Your task to perform on an android device: turn off notifications settings in the gmail app Image 0: 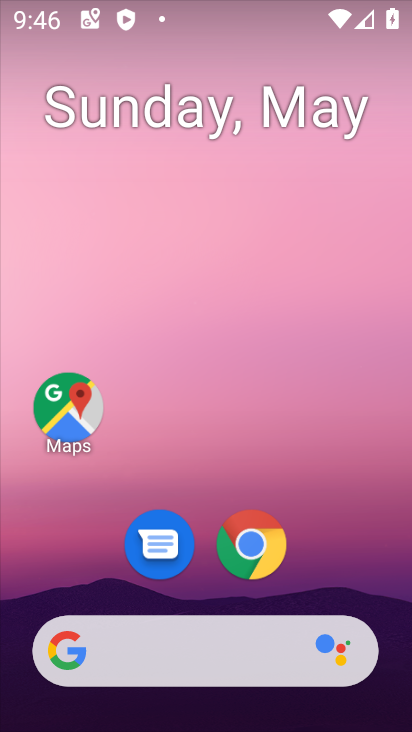
Step 0: drag from (366, 553) to (326, 14)
Your task to perform on an android device: turn off notifications settings in the gmail app Image 1: 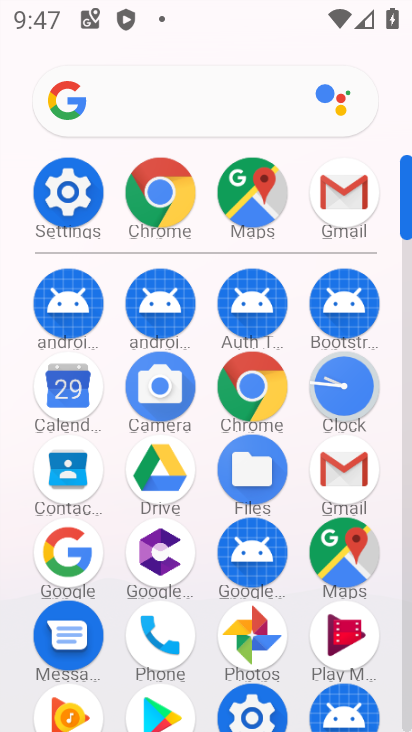
Step 1: click (375, 221)
Your task to perform on an android device: turn off notifications settings in the gmail app Image 2: 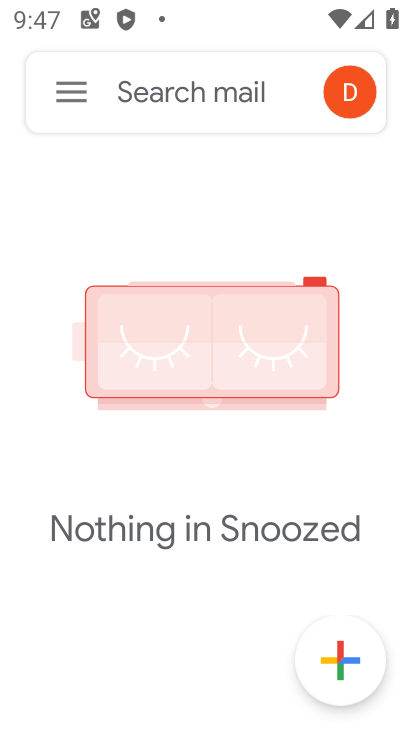
Step 2: click (51, 97)
Your task to perform on an android device: turn off notifications settings in the gmail app Image 3: 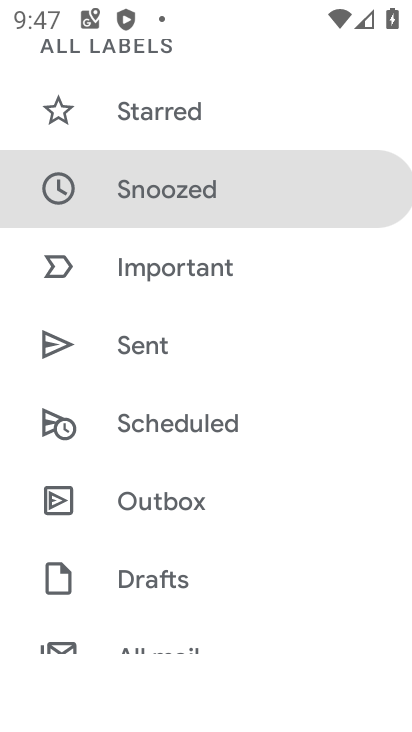
Step 3: drag from (187, 594) to (254, 5)
Your task to perform on an android device: turn off notifications settings in the gmail app Image 4: 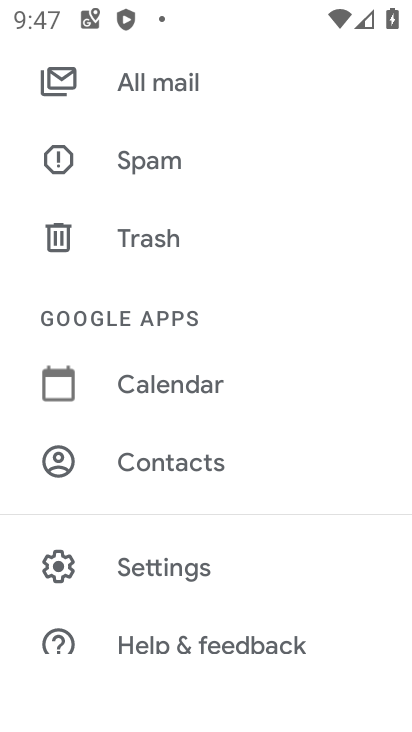
Step 4: drag from (246, 572) to (243, 7)
Your task to perform on an android device: turn off notifications settings in the gmail app Image 5: 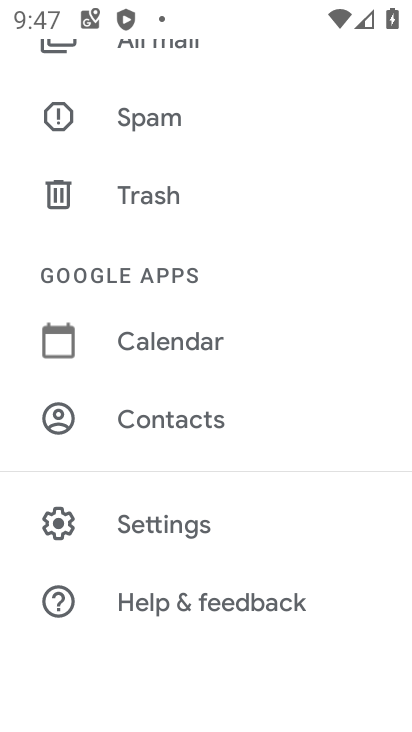
Step 5: click (197, 525)
Your task to perform on an android device: turn off notifications settings in the gmail app Image 6: 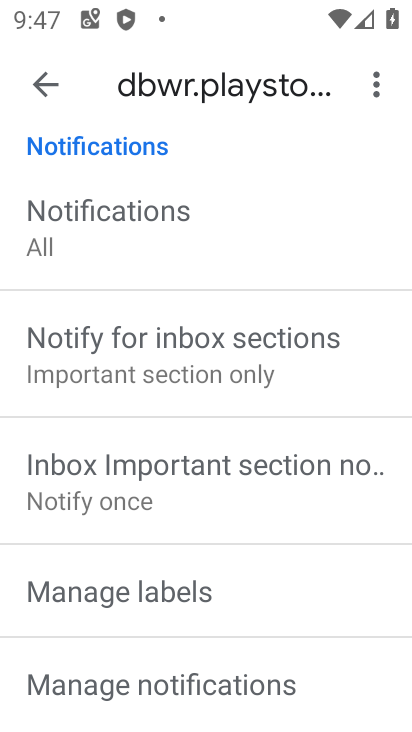
Step 6: click (80, 190)
Your task to perform on an android device: turn off notifications settings in the gmail app Image 7: 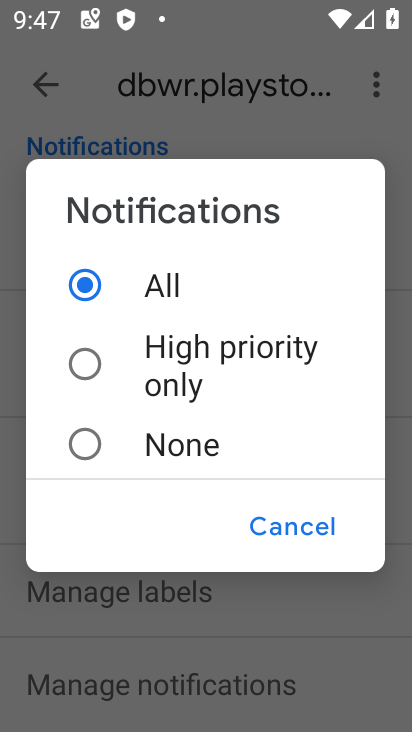
Step 7: drag from (116, 409) to (164, 118)
Your task to perform on an android device: turn off notifications settings in the gmail app Image 8: 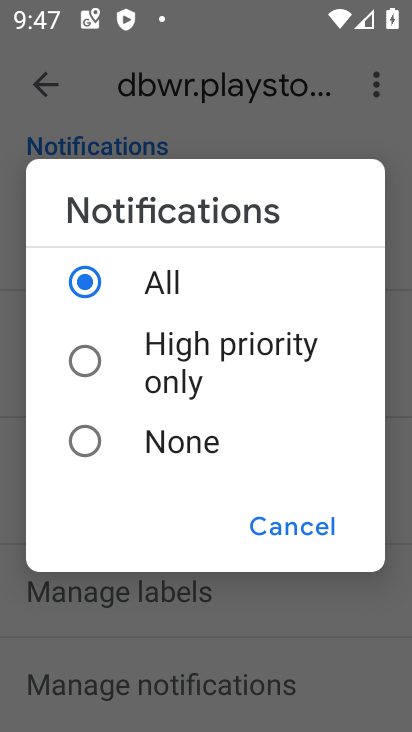
Step 8: click (94, 451)
Your task to perform on an android device: turn off notifications settings in the gmail app Image 9: 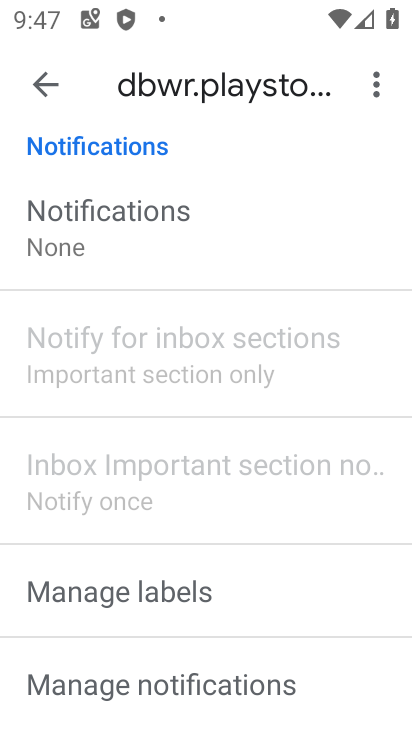
Step 9: task complete